Your task to perform on an android device: Clear all items from cart on bestbuy. Search for razer blade on bestbuy, select the first entry, add it to the cart, then select checkout. Image 0: 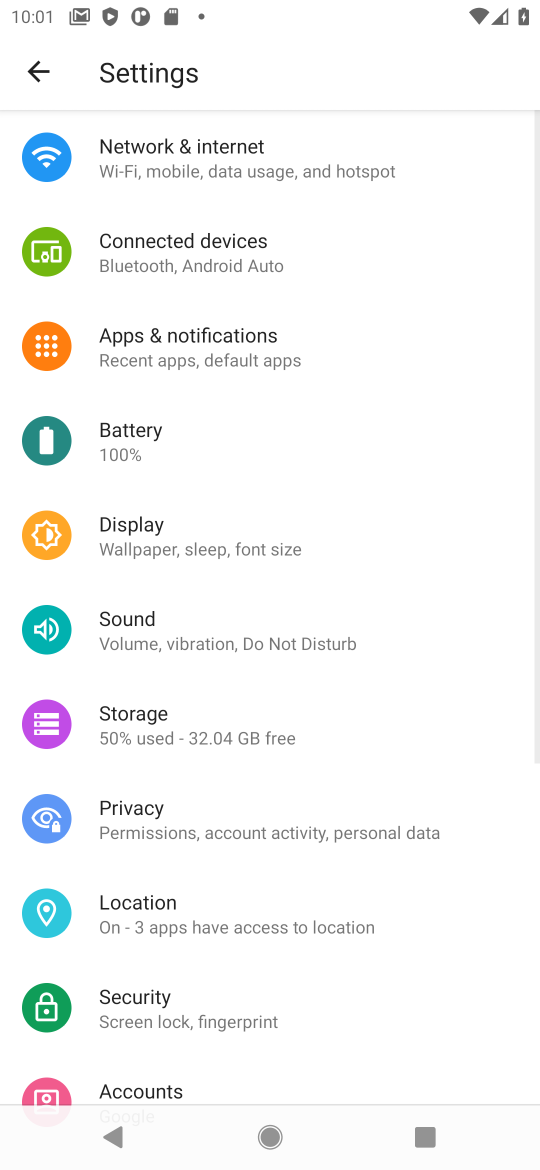
Step 0: press home button
Your task to perform on an android device: Clear all items from cart on bestbuy. Search for razer blade on bestbuy, select the first entry, add it to the cart, then select checkout. Image 1: 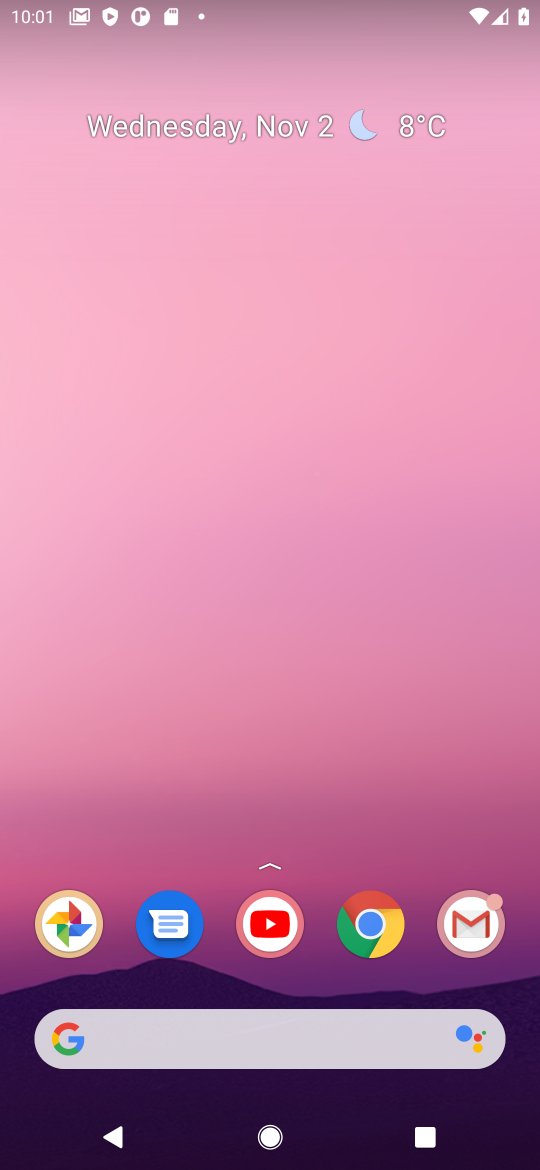
Step 1: click (384, 930)
Your task to perform on an android device: Clear all items from cart on bestbuy. Search for razer blade on bestbuy, select the first entry, add it to the cart, then select checkout. Image 2: 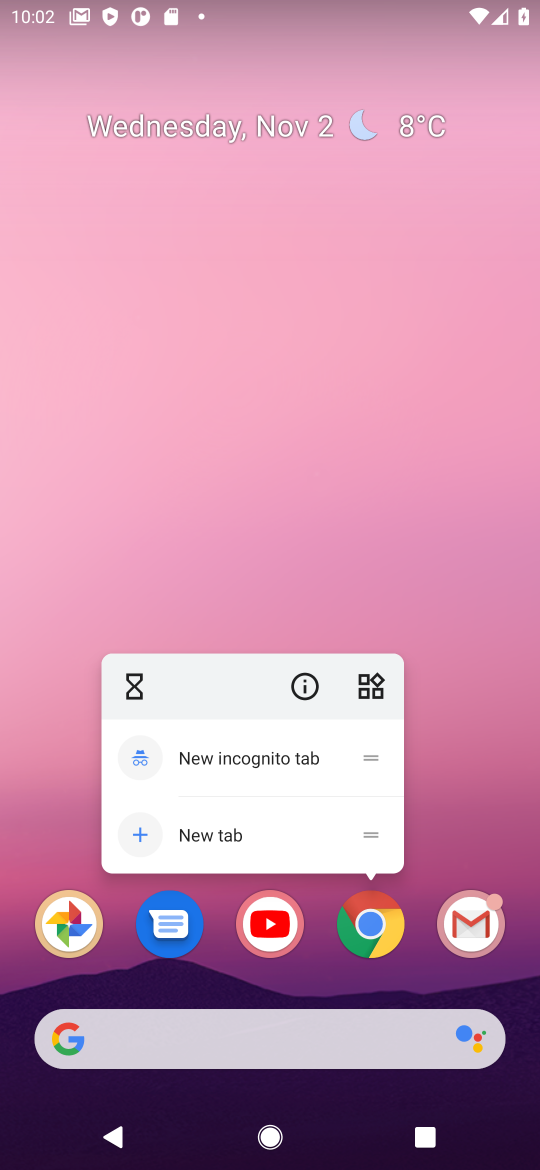
Step 2: click (384, 930)
Your task to perform on an android device: Clear all items from cart on bestbuy. Search for razer blade on bestbuy, select the first entry, add it to the cart, then select checkout. Image 3: 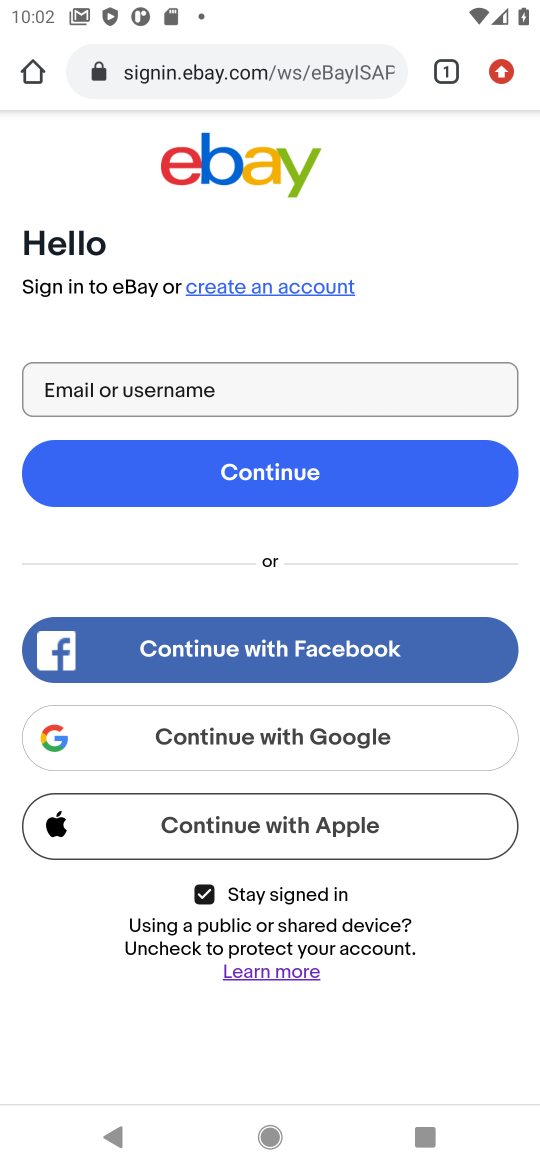
Step 3: click (155, 63)
Your task to perform on an android device: Clear all items from cart on bestbuy. Search for razer blade on bestbuy, select the first entry, add it to the cart, then select checkout. Image 4: 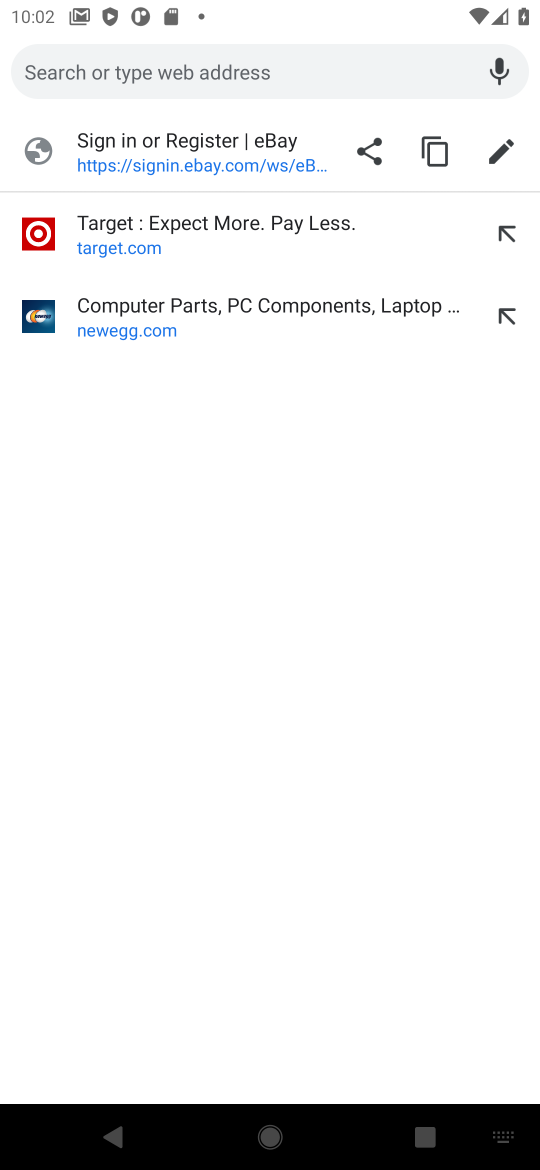
Step 4: type "bestbuy"
Your task to perform on an android device: Clear all items from cart on bestbuy. Search for razer blade on bestbuy, select the first entry, add it to the cart, then select checkout. Image 5: 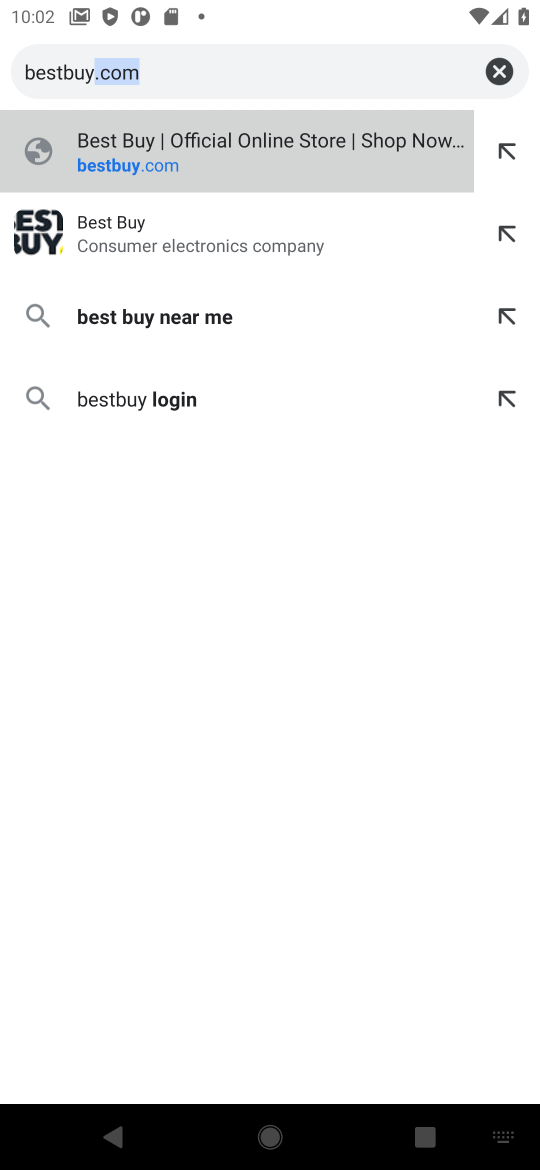
Step 5: click (79, 241)
Your task to perform on an android device: Clear all items from cart on bestbuy. Search for razer blade on bestbuy, select the first entry, add it to the cart, then select checkout. Image 6: 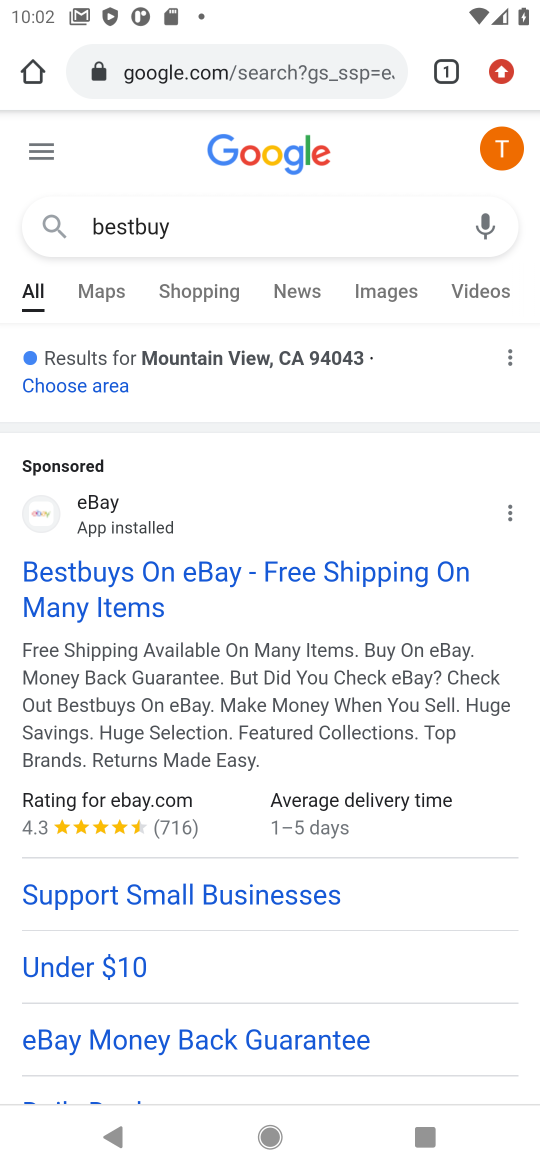
Step 6: drag from (233, 663) to (303, 67)
Your task to perform on an android device: Clear all items from cart on bestbuy. Search for razer blade on bestbuy, select the first entry, add it to the cart, then select checkout. Image 7: 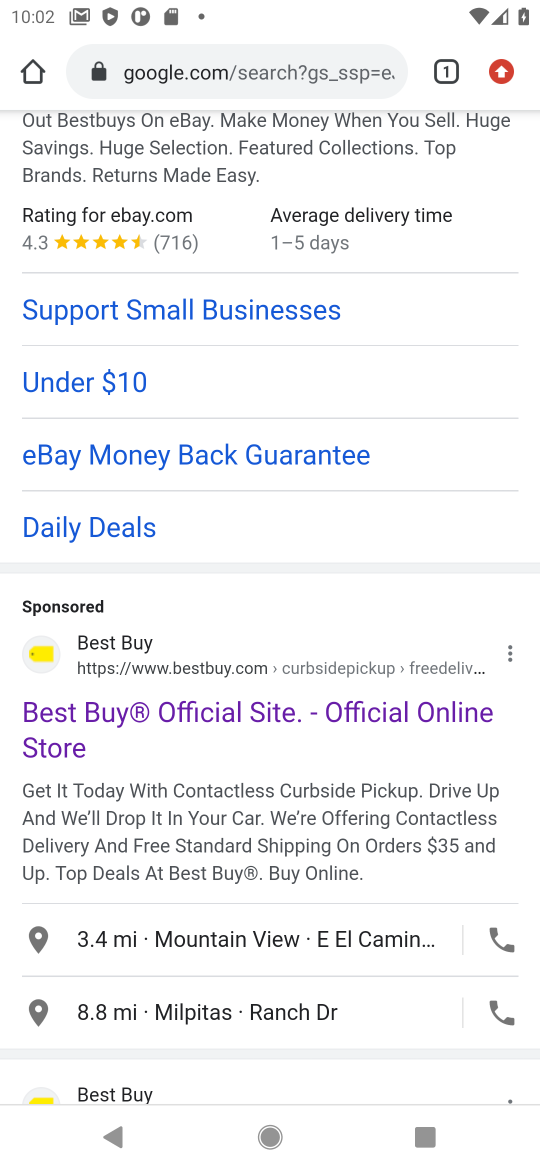
Step 7: click (109, 715)
Your task to perform on an android device: Clear all items from cart on bestbuy. Search for razer blade on bestbuy, select the first entry, add it to the cart, then select checkout. Image 8: 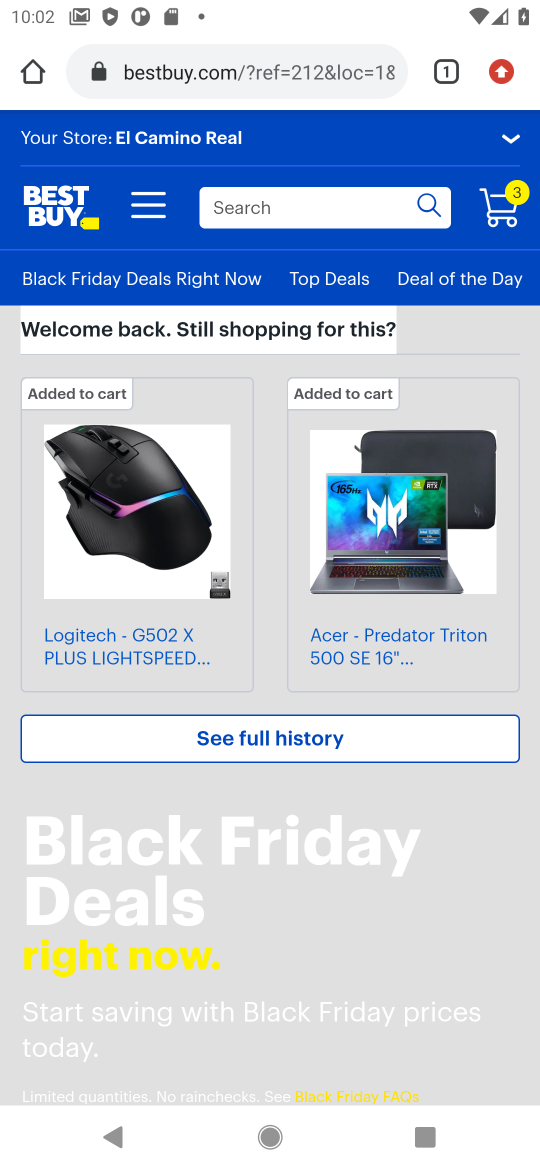
Step 8: click (249, 207)
Your task to perform on an android device: Clear all items from cart on bestbuy. Search for razer blade on bestbuy, select the first entry, add it to the cart, then select checkout. Image 9: 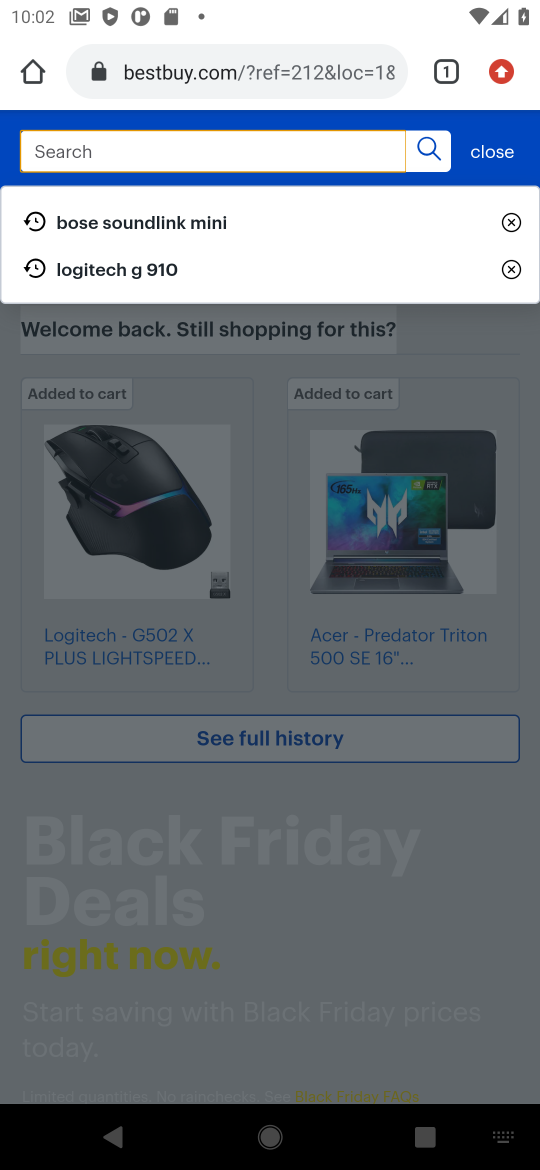
Step 9: type "razer blade"
Your task to perform on an android device: Clear all items from cart on bestbuy. Search for razer blade on bestbuy, select the first entry, add it to the cart, then select checkout. Image 10: 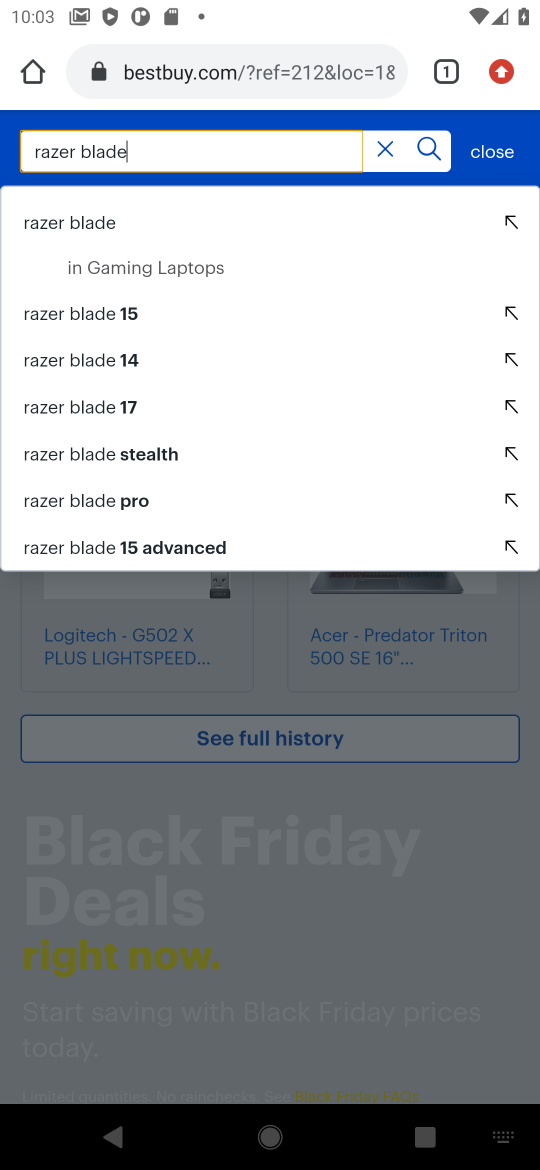
Step 10: click (84, 226)
Your task to perform on an android device: Clear all items from cart on bestbuy. Search for razer blade on bestbuy, select the first entry, add it to the cart, then select checkout. Image 11: 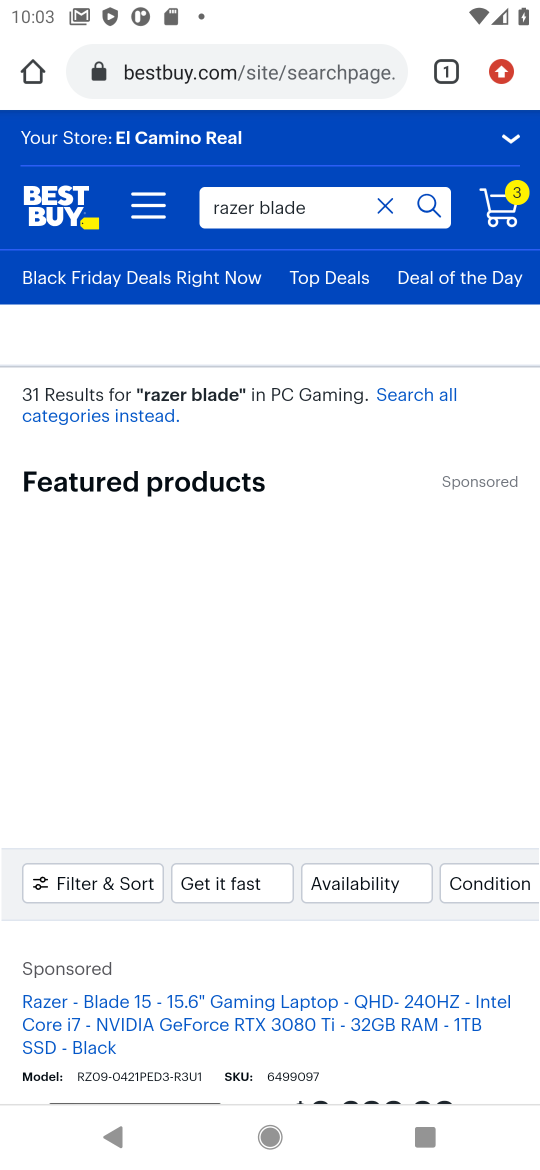
Step 11: drag from (236, 706) to (233, 155)
Your task to perform on an android device: Clear all items from cart on bestbuy. Search for razer blade on bestbuy, select the first entry, add it to the cart, then select checkout. Image 12: 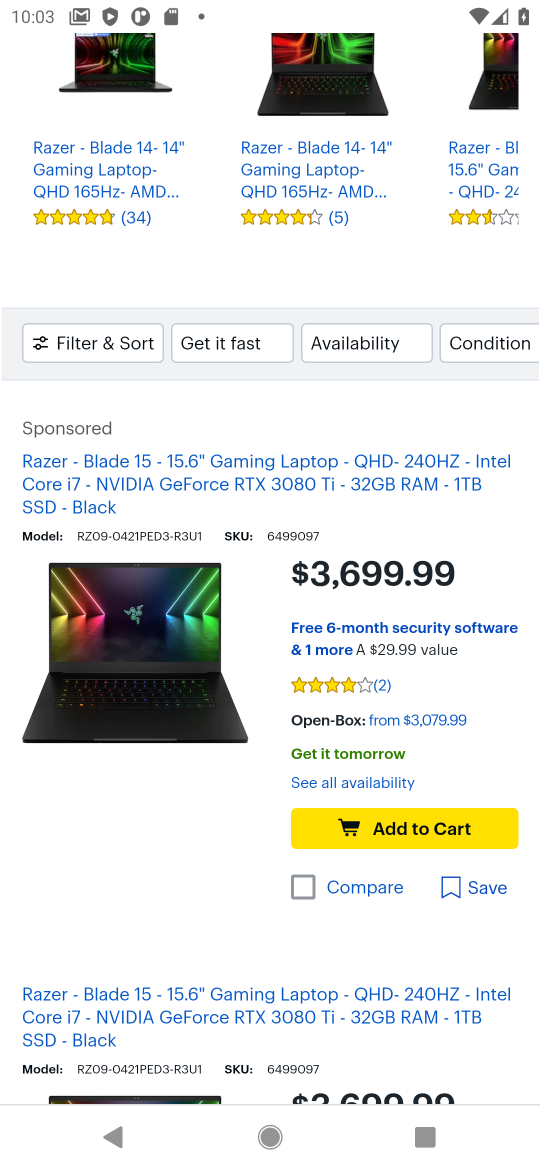
Step 12: drag from (177, 846) to (155, 539)
Your task to perform on an android device: Clear all items from cart on bestbuy. Search for razer blade on bestbuy, select the first entry, add it to the cart, then select checkout. Image 13: 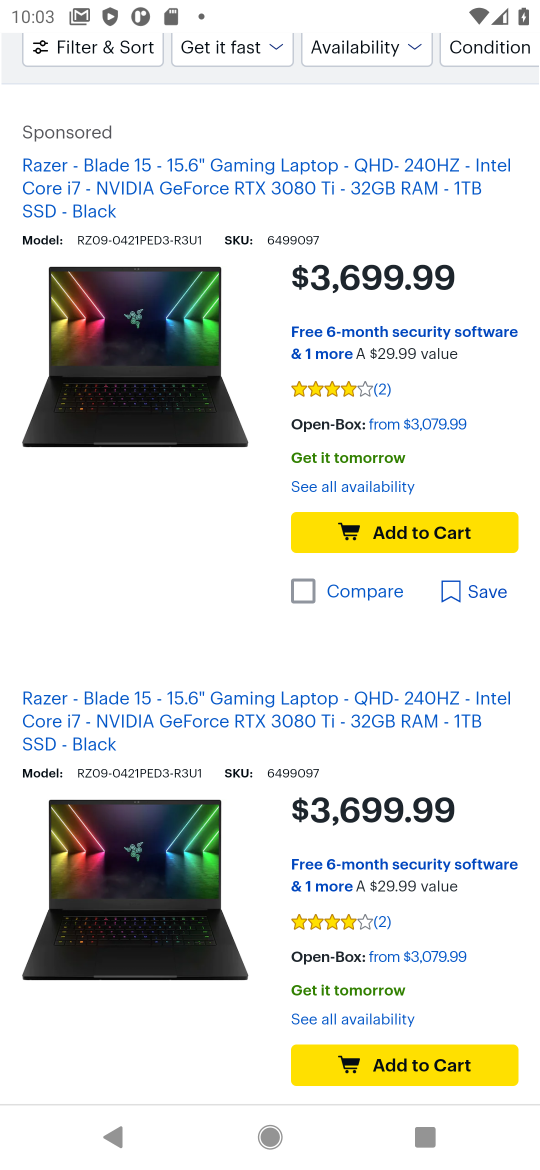
Step 13: click (212, 799)
Your task to perform on an android device: Clear all items from cart on bestbuy. Search for razer blade on bestbuy, select the first entry, add it to the cart, then select checkout. Image 14: 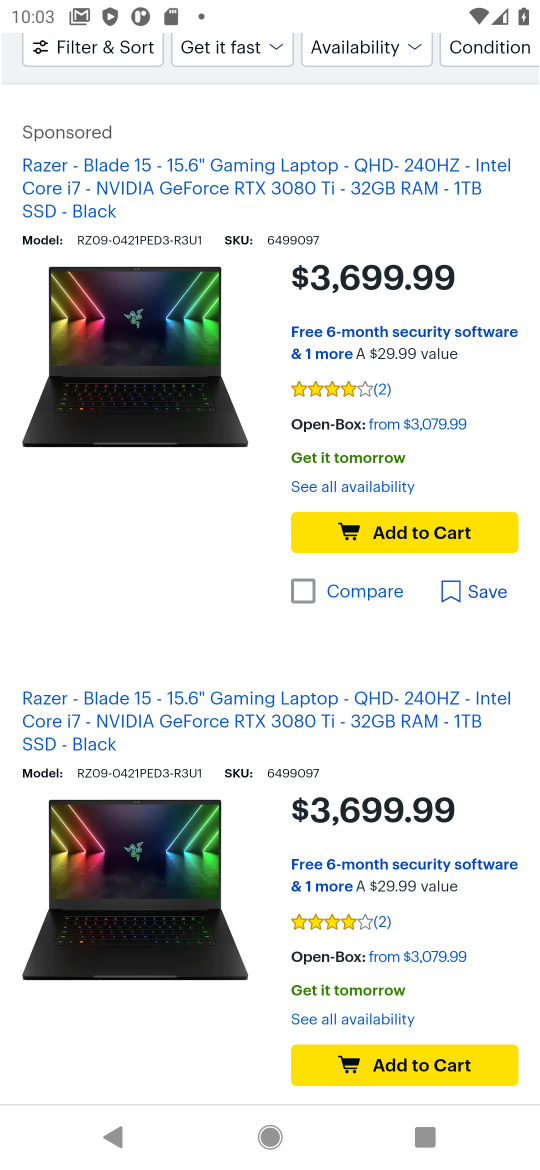
Step 14: click (202, 690)
Your task to perform on an android device: Clear all items from cart on bestbuy. Search for razer blade on bestbuy, select the first entry, add it to the cart, then select checkout. Image 15: 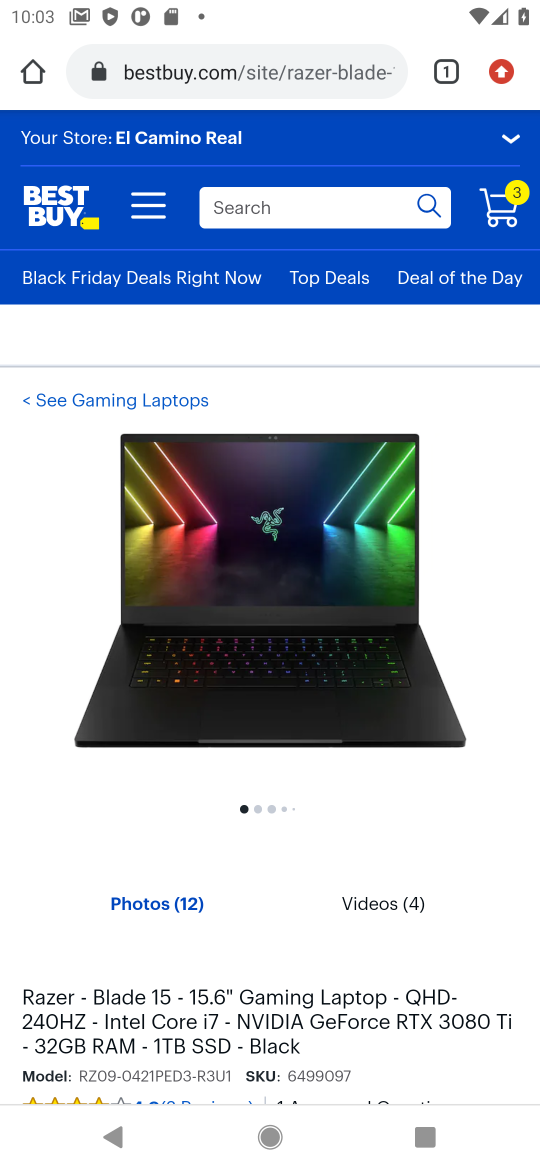
Step 15: drag from (249, 986) to (217, 404)
Your task to perform on an android device: Clear all items from cart on bestbuy. Search for razer blade on bestbuy, select the first entry, add it to the cart, then select checkout. Image 16: 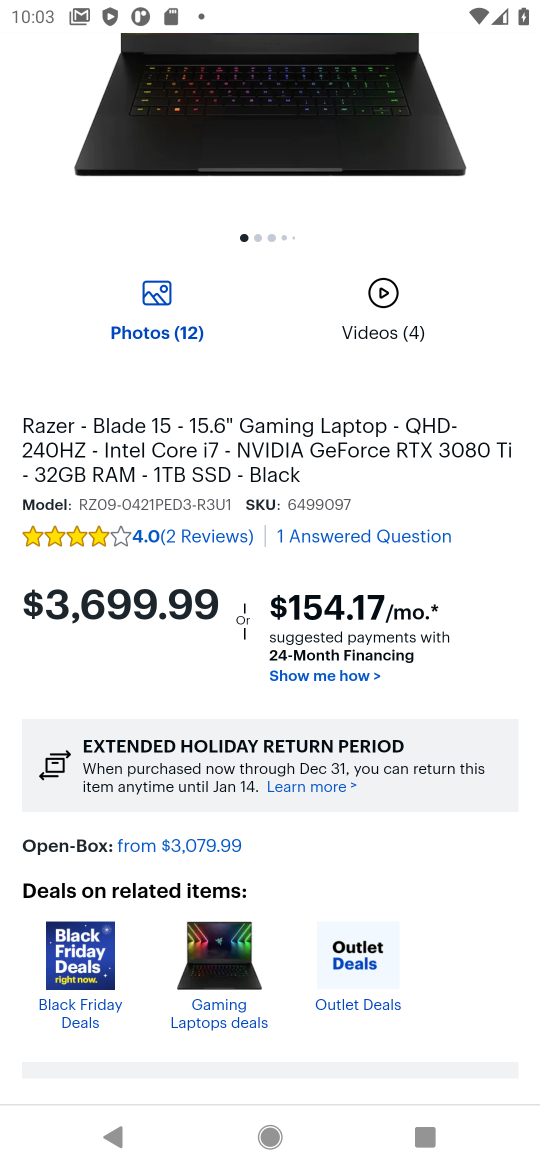
Step 16: drag from (238, 912) to (303, 346)
Your task to perform on an android device: Clear all items from cart on bestbuy. Search for razer blade on bestbuy, select the first entry, add it to the cart, then select checkout. Image 17: 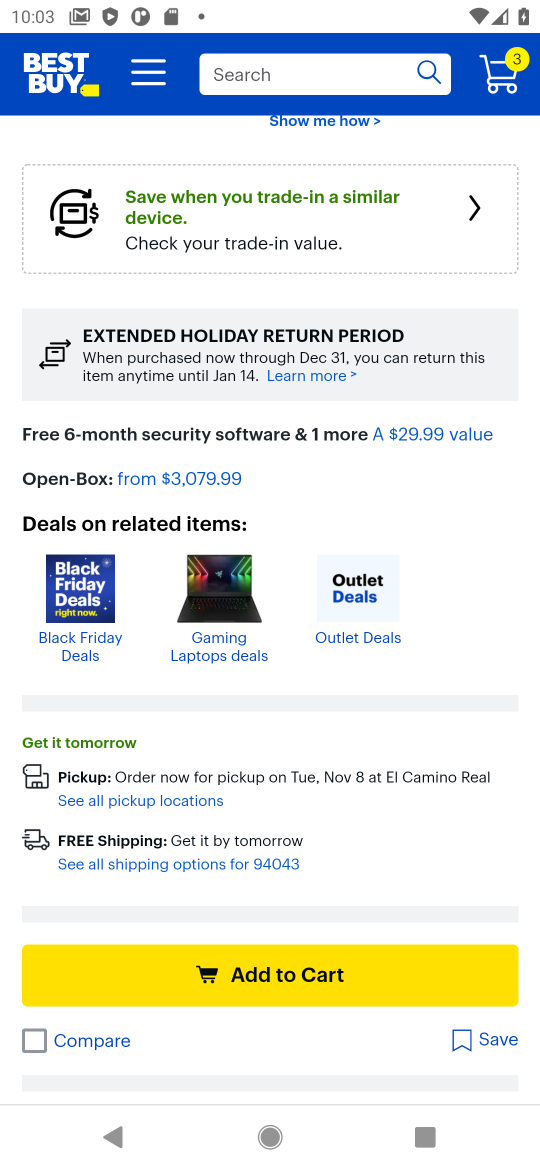
Step 17: click (268, 931)
Your task to perform on an android device: Clear all items from cart on bestbuy. Search for razer blade on bestbuy, select the first entry, add it to the cart, then select checkout. Image 18: 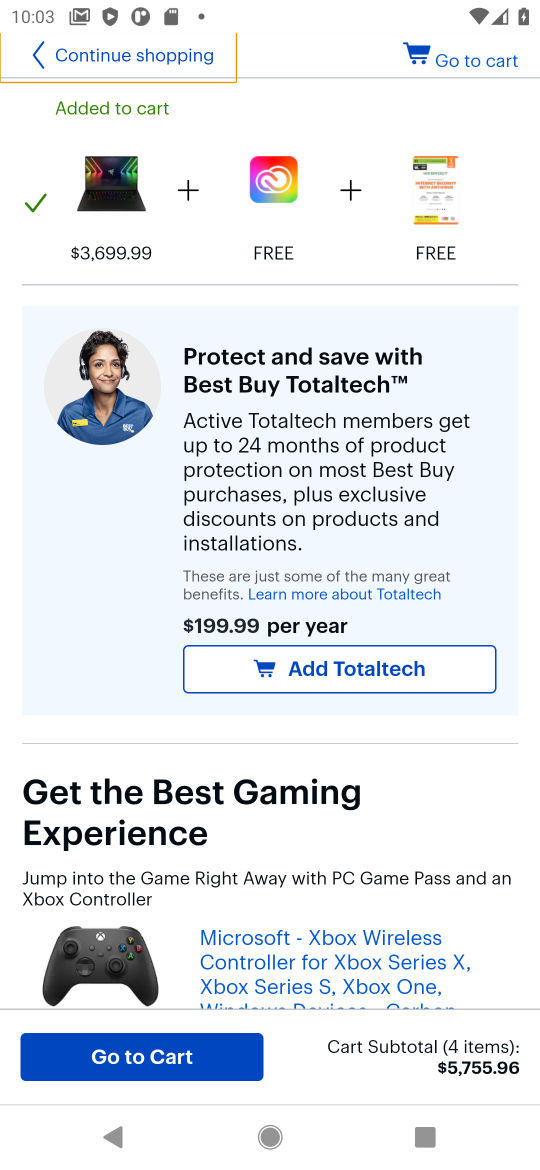
Step 18: click (109, 1057)
Your task to perform on an android device: Clear all items from cart on bestbuy. Search for razer blade on bestbuy, select the first entry, add it to the cart, then select checkout. Image 19: 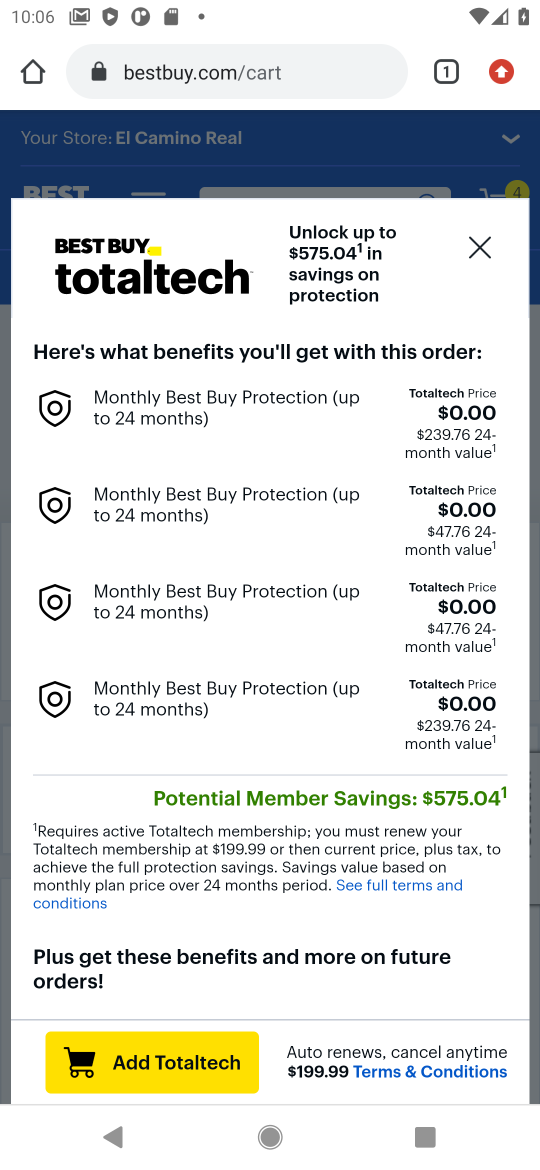
Step 19: click (484, 260)
Your task to perform on an android device: Clear all items from cart on bestbuy. Search for razer blade on bestbuy, select the first entry, add it to the cart, then select checkout. Image 20: 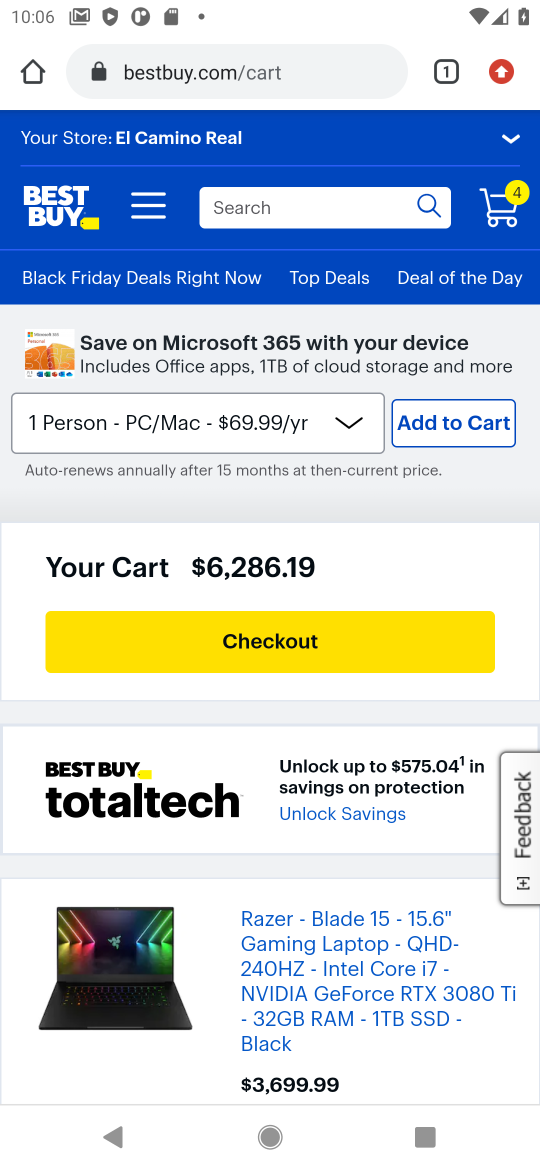
Step 20: click (477, 244)
Your task to perform on an android device: Clear all items from cart on bestbuy. Search for razer blade on bestbuy, select the first entry, add it to the cart, then select checkout. Image 21: 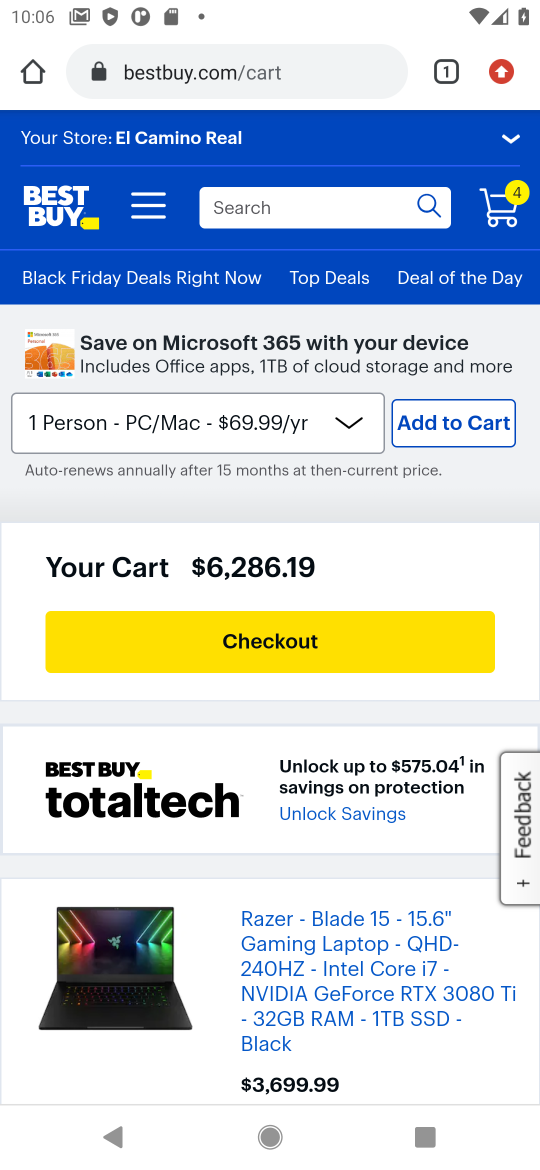
Step 21: click (237, 657)
Your task to perform on an android device: Clear all items from cart on bestbuy. Search for razer blade on bestbuy, select the first entry, add it to the cart, then select checkout. Image 22: 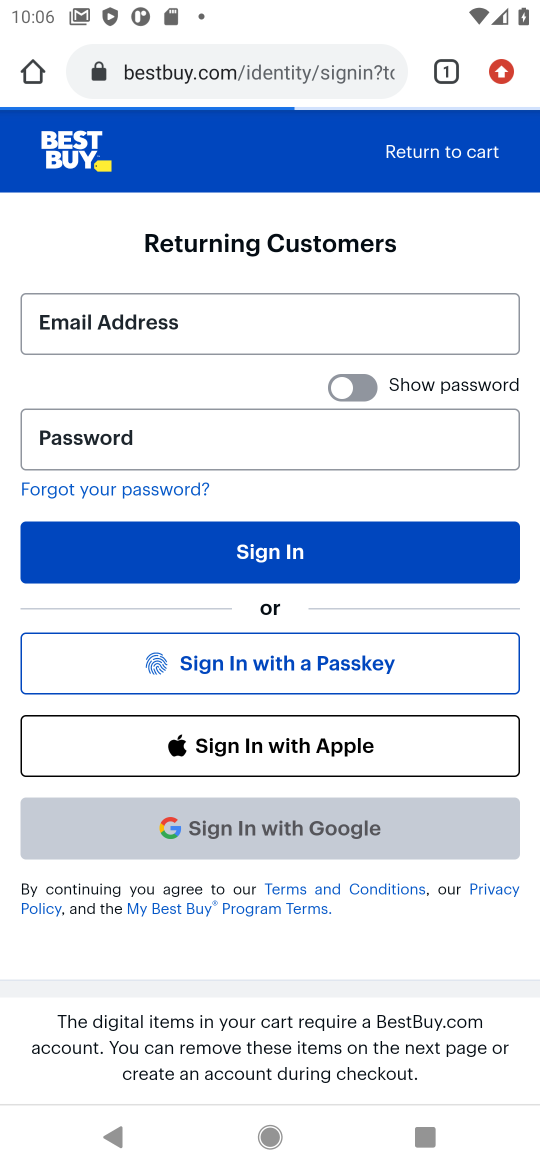
Step 22: task complete